Your task to perform on an android device: install app "DoorDash - Dasher" Image 0: 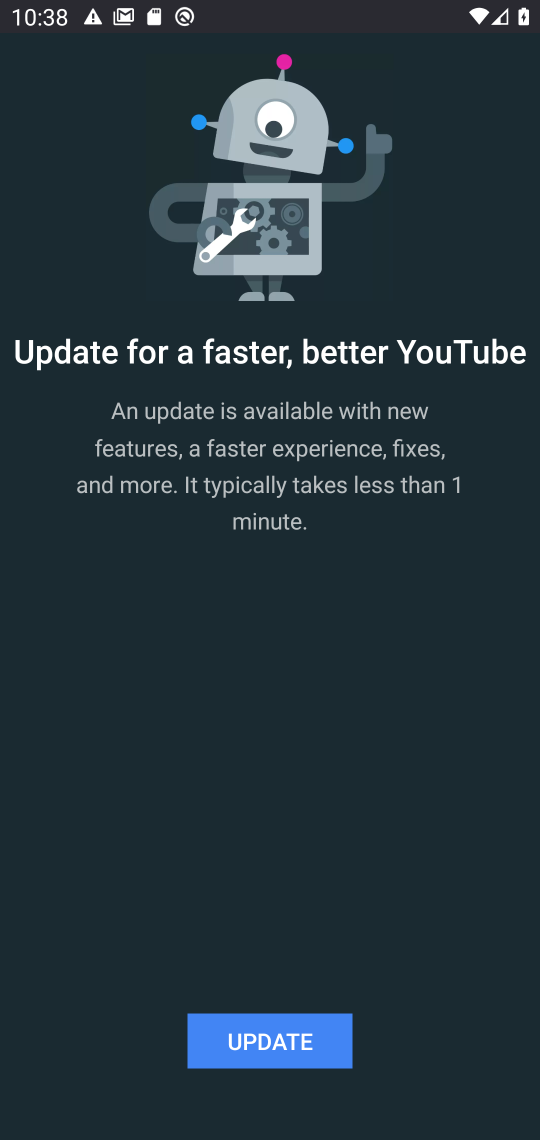
Step 0: press home button
Your task to perform on an android device: install app "DoorDash - Dasher" Image 1: 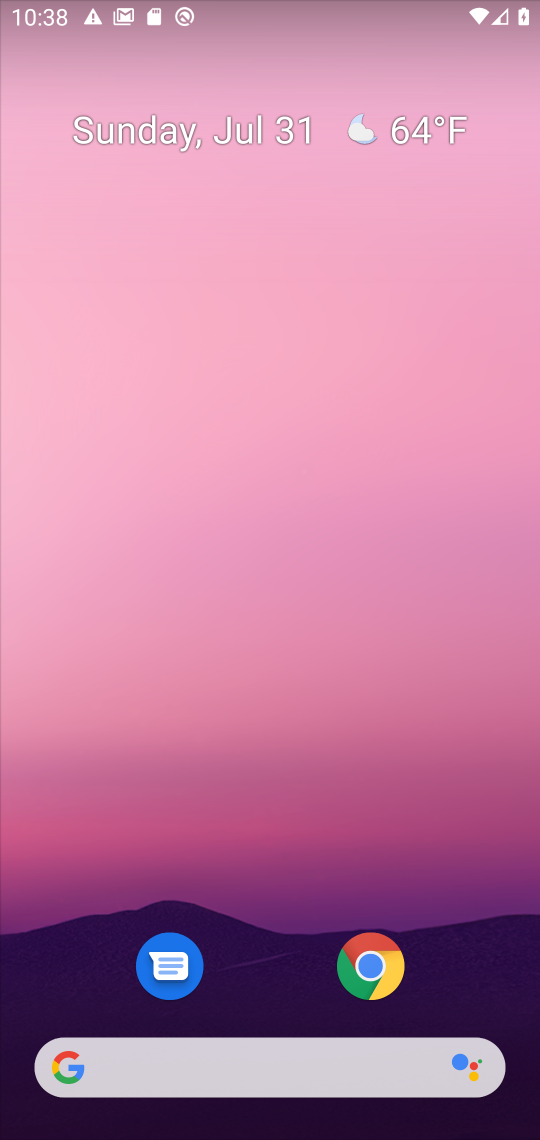
Step 1: drag from (263, 852) to (295, 15)
Your task to perform on an android device: install app "DoorDash - Dasher" Image 2: 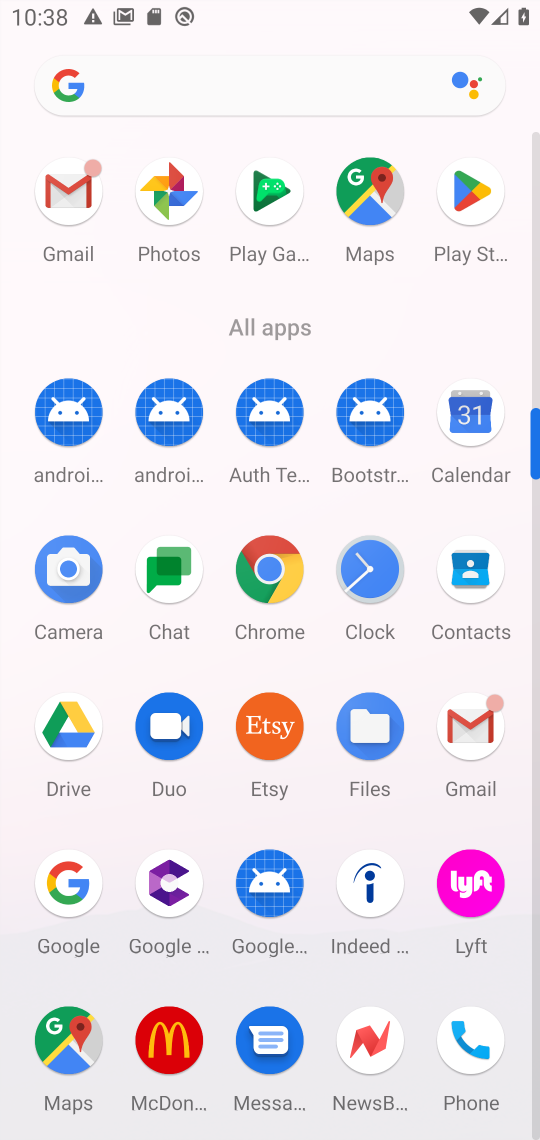
Step 2: click (470, 234)
Your task to perform on an android device: install app "DoorDash - Dasher" Image 3: 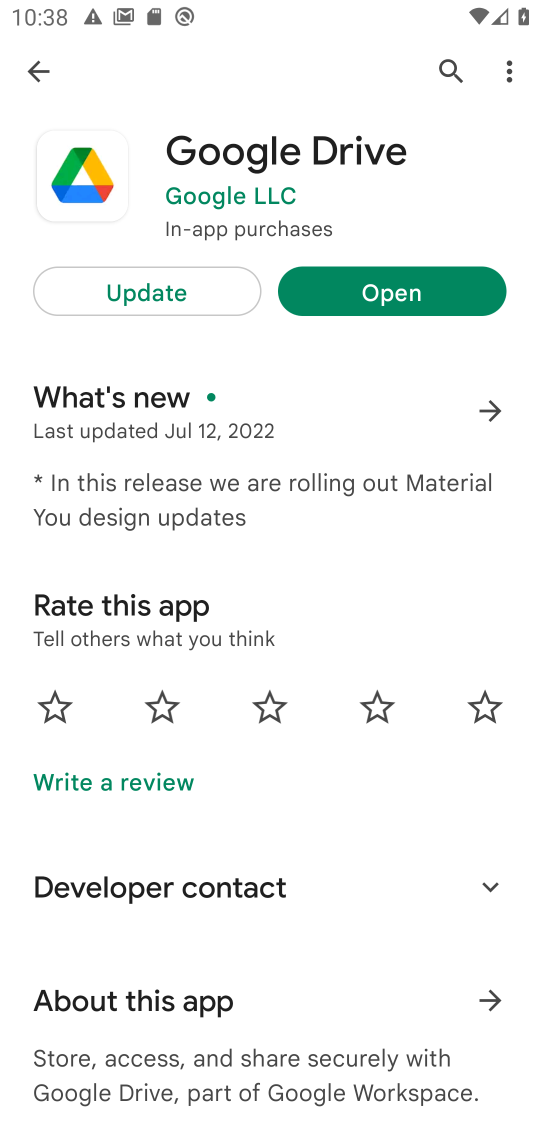
Step 3: click (42, 72)
Your task to perform on an android device: install app "DoorDash - Dasher" Image 4: 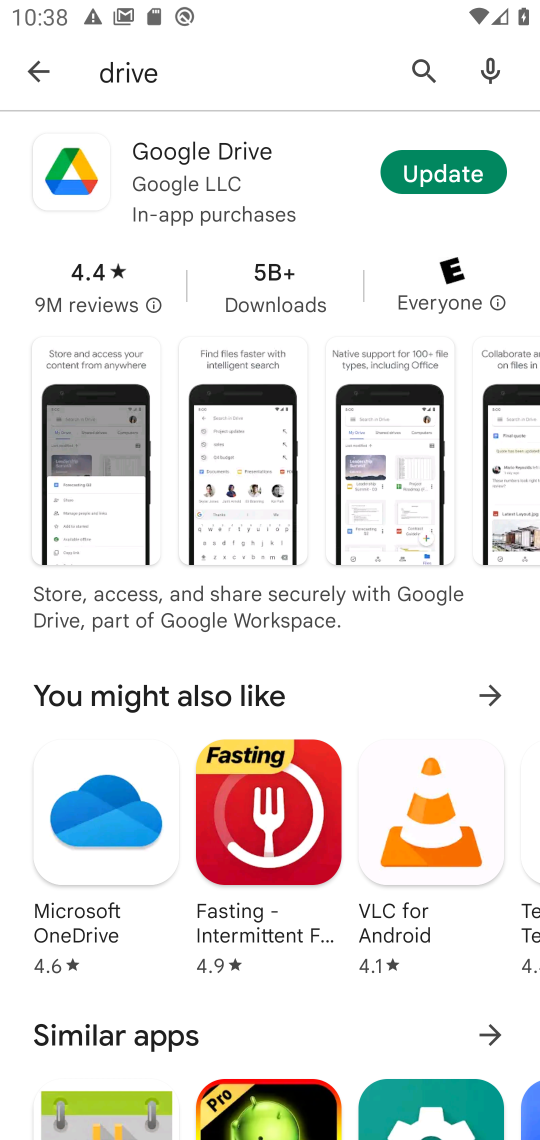
Step 4: click (246, 95)
Your task to perform on an android device: install app "DoorDash - Dasher" Image 5: 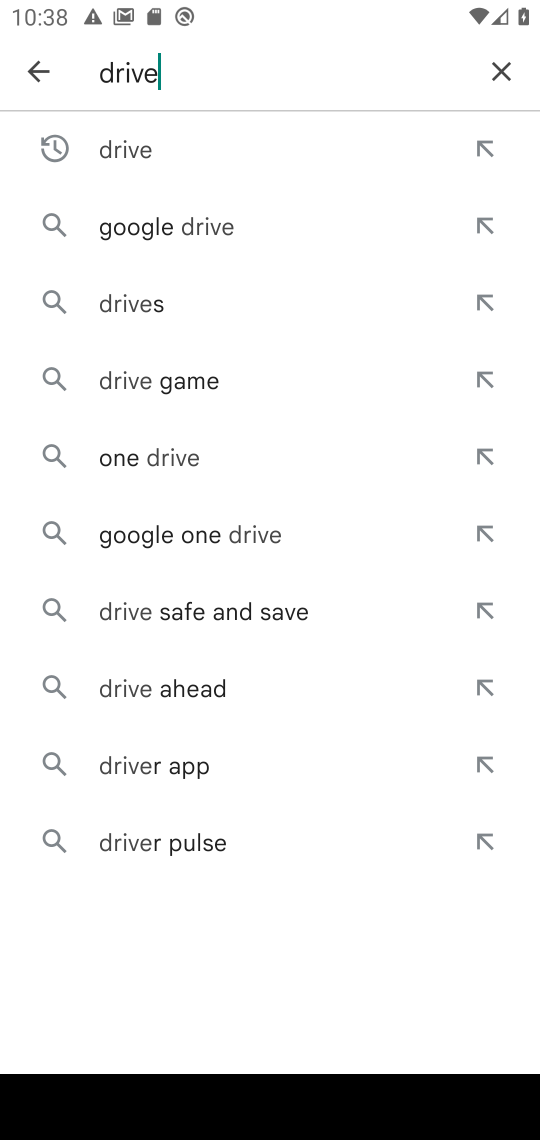
Step 5: click (493, 69)
Your task to perform on an android device: install app "DoorDash - Dasher" Image 6: 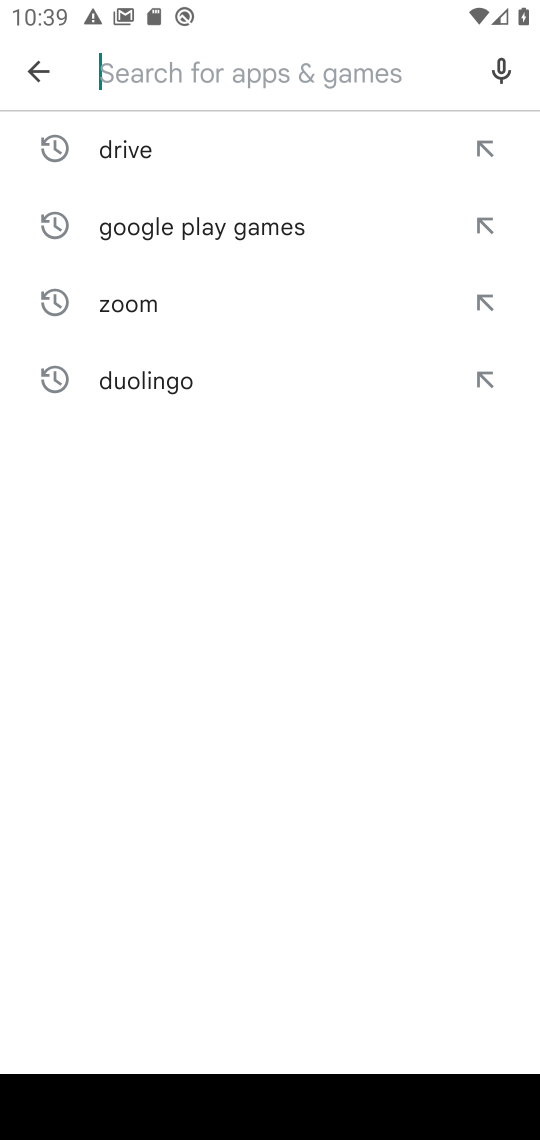
Step 6: type "doordash-Dasher"
Your task to perform on an android device: install app "DoorDash - Dasher" Image 7: 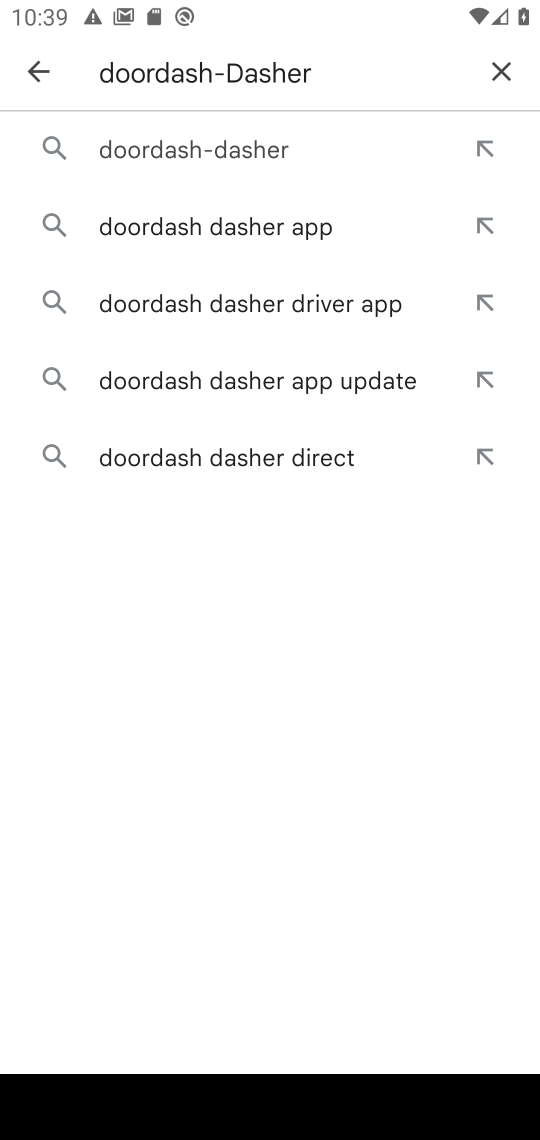
Step 7: click (183, 145)
Your task to perform on an android device: install app "DoorDash - Dasher" Image 8: 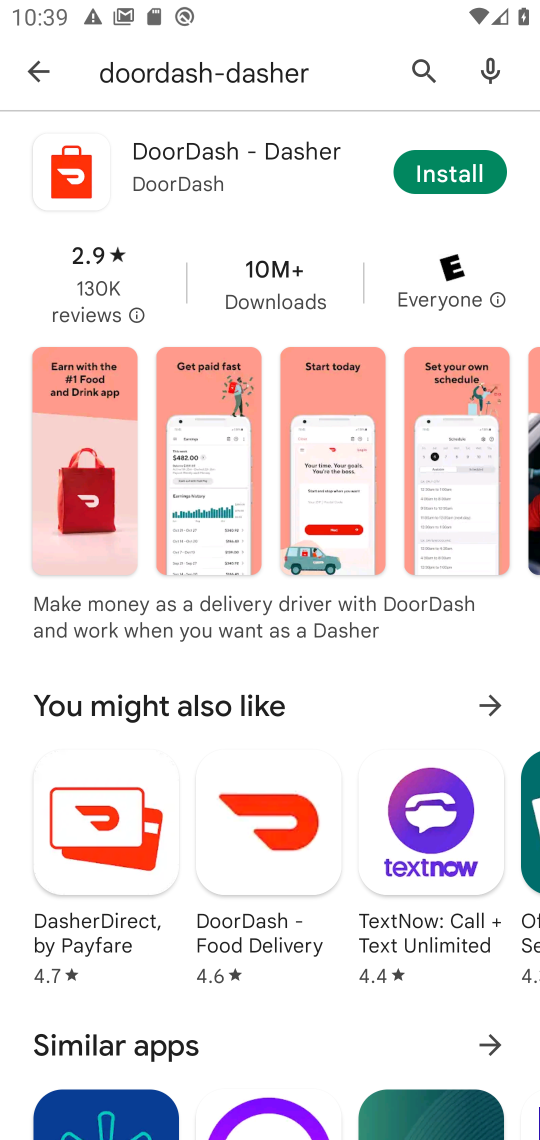
Step 8: click (434, 166)
Your task to perform on an android device: install app "DoorDash - Dasher" Image 9: 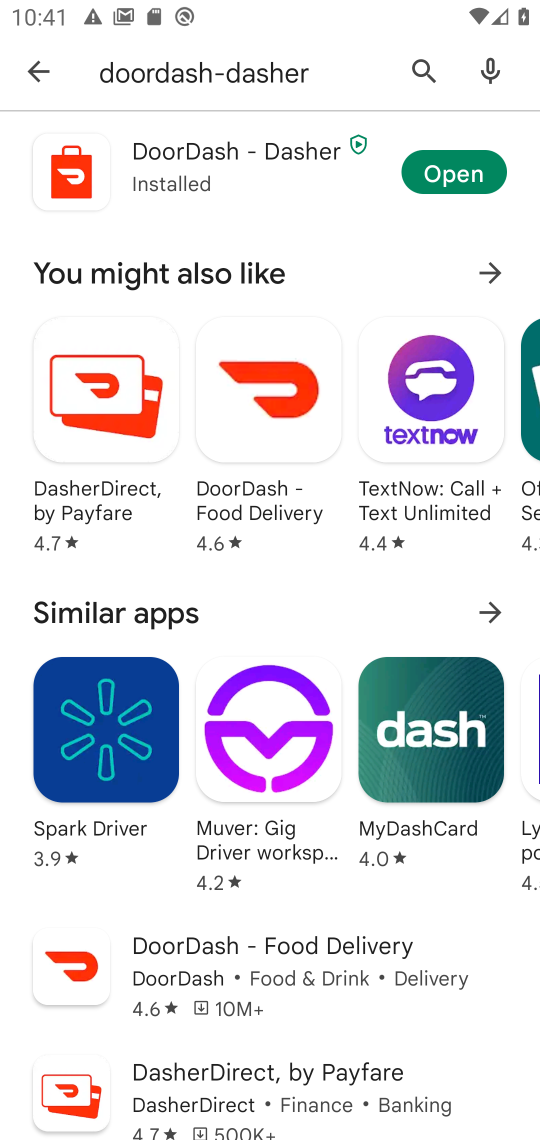
Step 9: task complete